Your task to perform on an android device: Do I have any events today? Image 0: 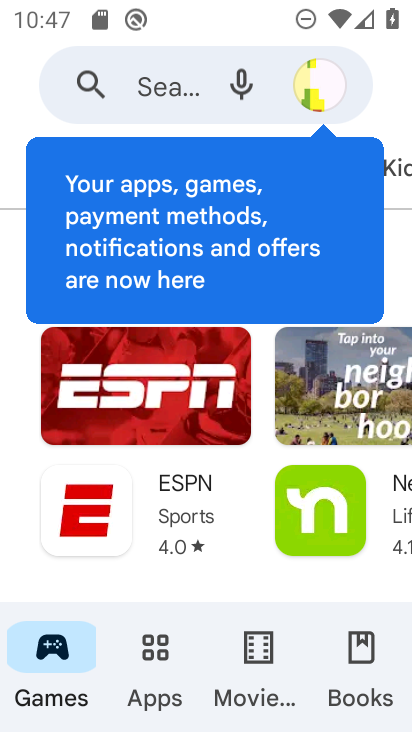
Step 0: press back button
Your task to perform on an android device: Do I have any events today? Image 1: 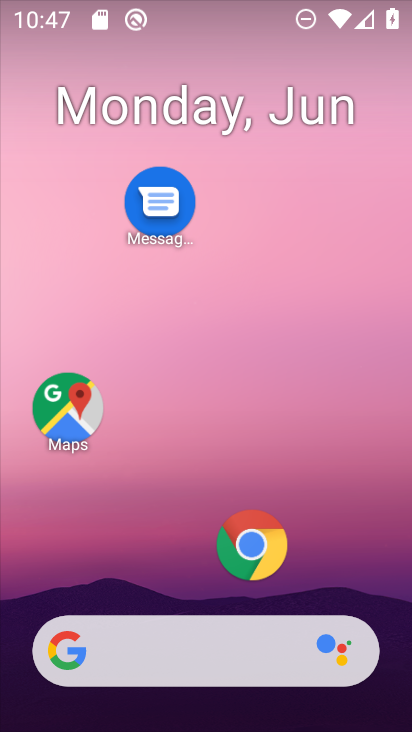
Step 1: drag from (199, 579) to (344, 164)
Your task to perform on an android device: Do I have any events today? Image 2: 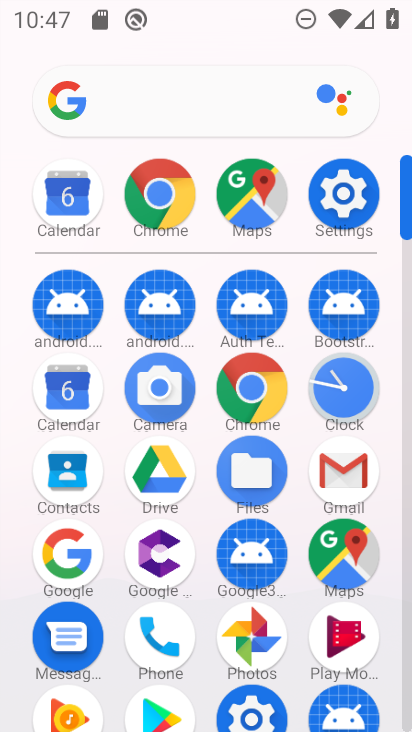
Step 2: click (81, 390)
Your task to perform on an android device: Do I have any events today? Image 3: 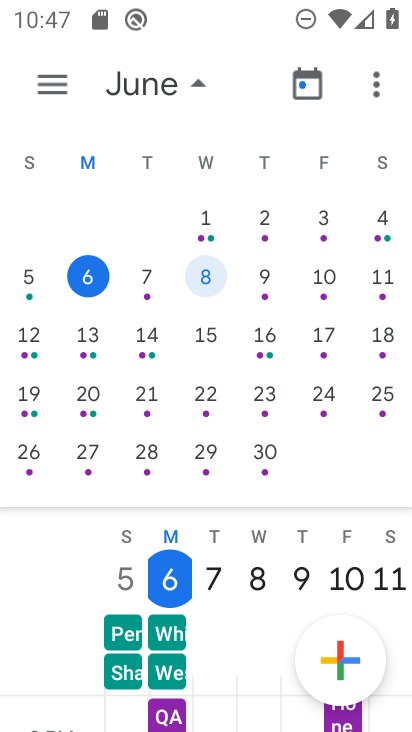
Step 3: click (159, 277)
Your task to perform on an android device: Do I have any events today? Image 4: 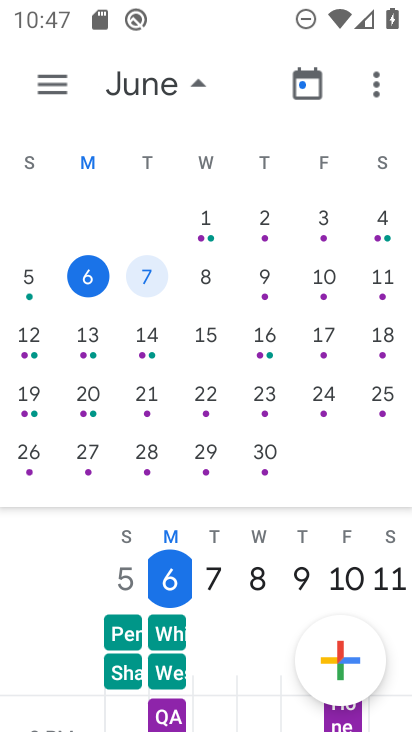
Step 4: task complete